Your task to perform on an android device: open chrome and create a bookmark for the current page Image 0: 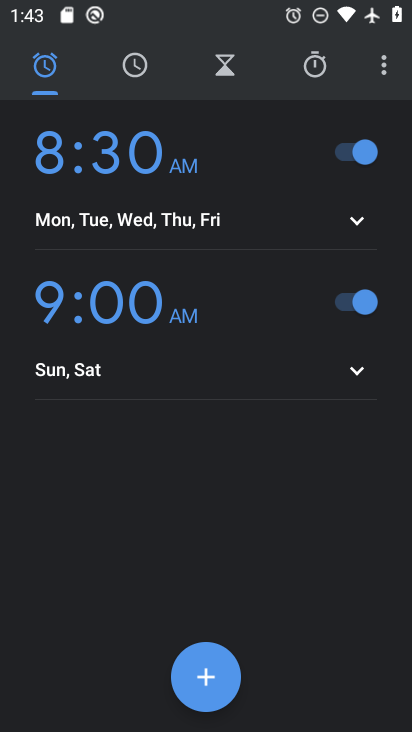
Step 0: press home button
Your task to perform on an android device: open chrome and create a bookmark for the current page Image 1: 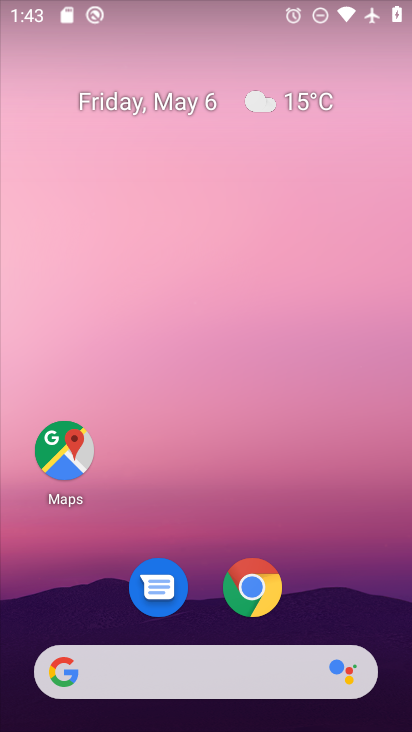
Step 1: click (262, 598)
Your task to perform on an android device: open chrome and create a bookmark for the current page Image 2: 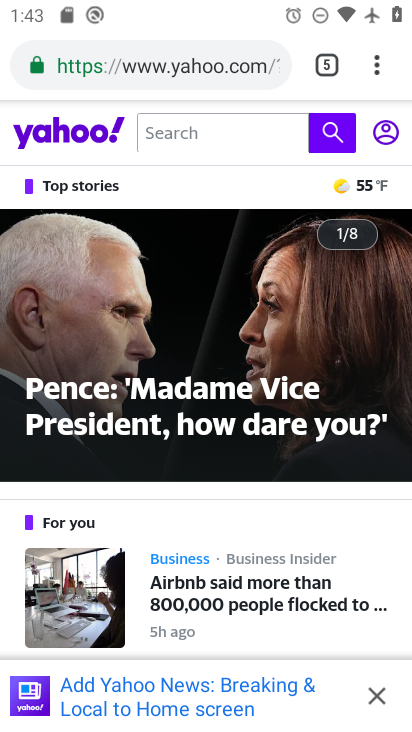
Step 2: click (377, 61)
Your task to perform on an android device: open chrome and create a bookmark for the current page Image 3: 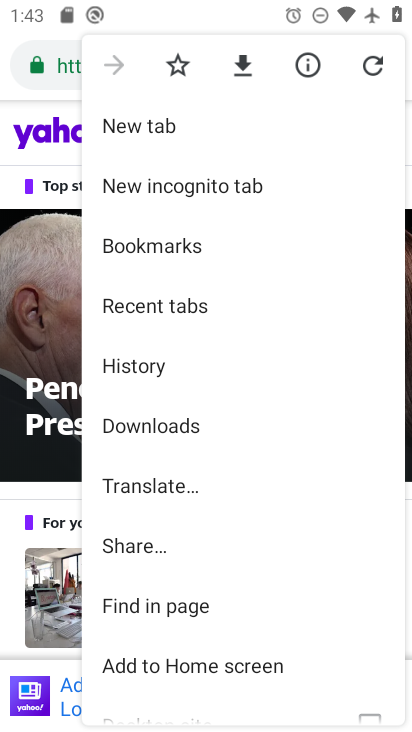
Step 3: click (177, 66)
Your task to perform on an android device: open chrome and create a bookmark for the current page Image 4: 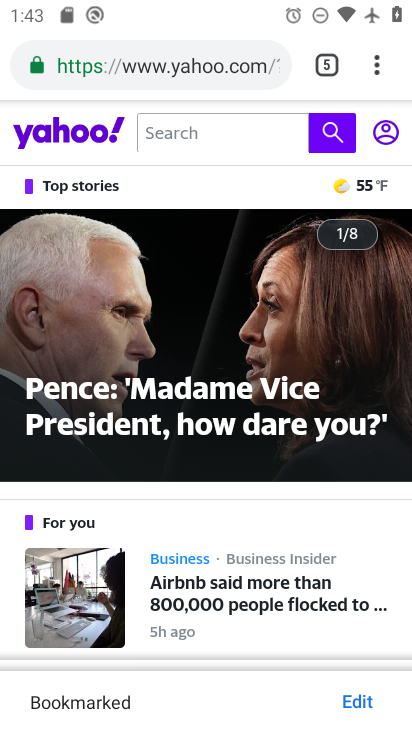
Step 4: task complete